Your task to perform on an android device: Open network settings Image 0: 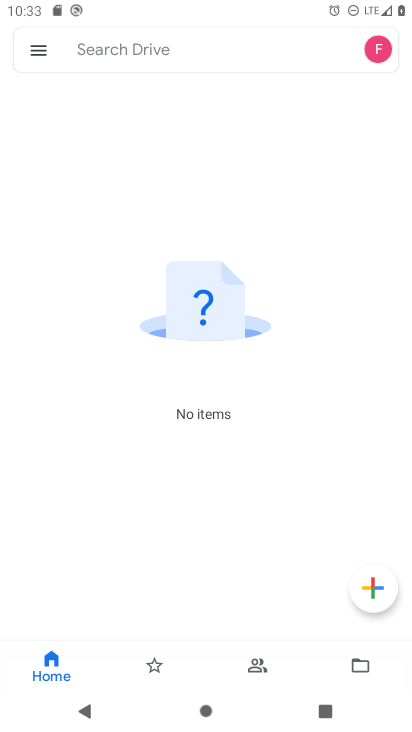
Step 0: press home button
Your task to perform on an android device: Open network settings Image 1: 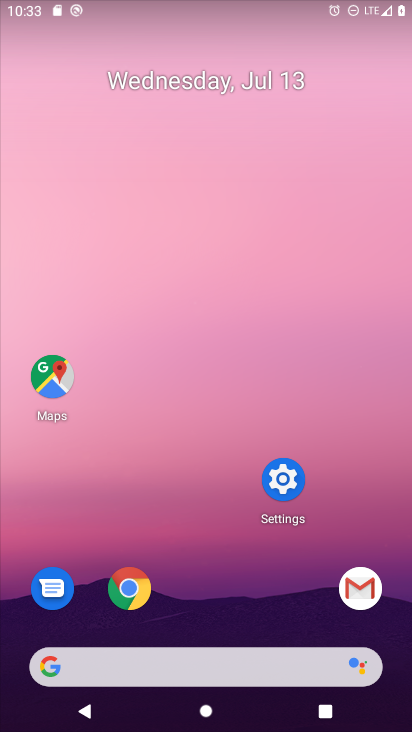
Step 1: click (280, 499)
Your task to perform on an android device: Open network settings Image 2: 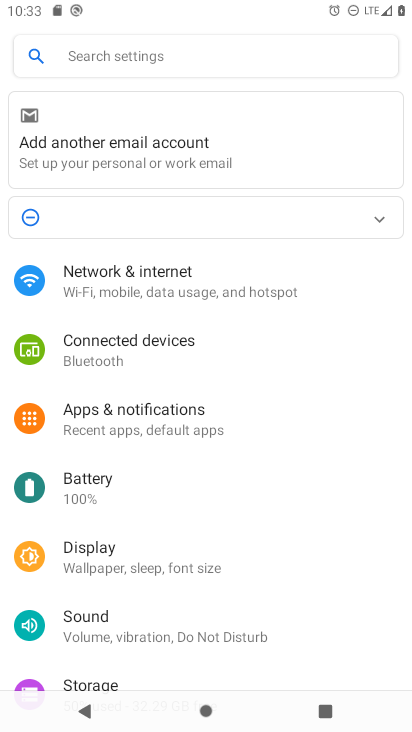
Step 2: click (132, 292)
Your task to perform on an android device: Open network settings Image 3: 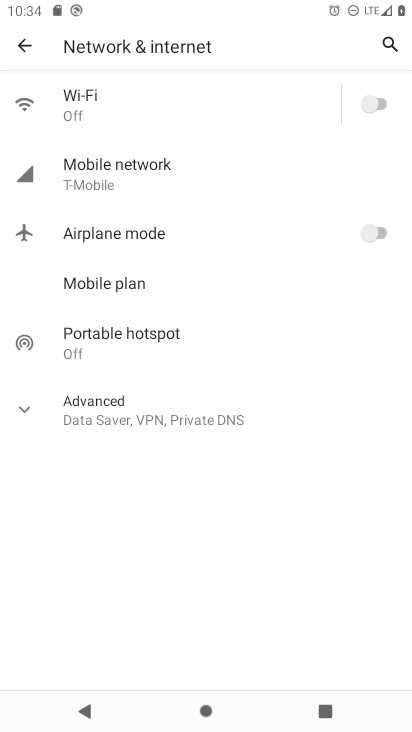
Step 3: task complete